Your task to perform on an android device: Go to Yahoo.com Image 0: 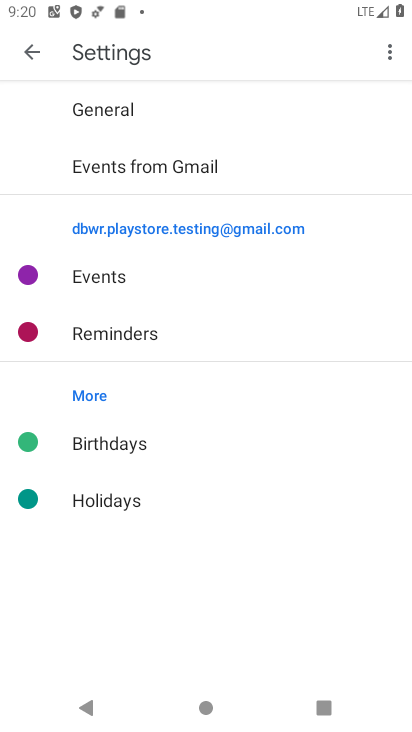
Step 0: press home button
Your task to perform on an android device: Go to Yahoo.com Image 1: 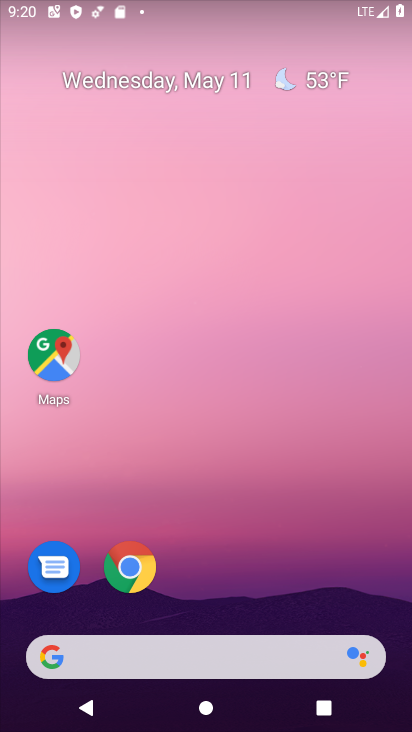
Step 1: click (106, 655)
Your task to perform on an android device: Go to Yahoo.com Image 2: 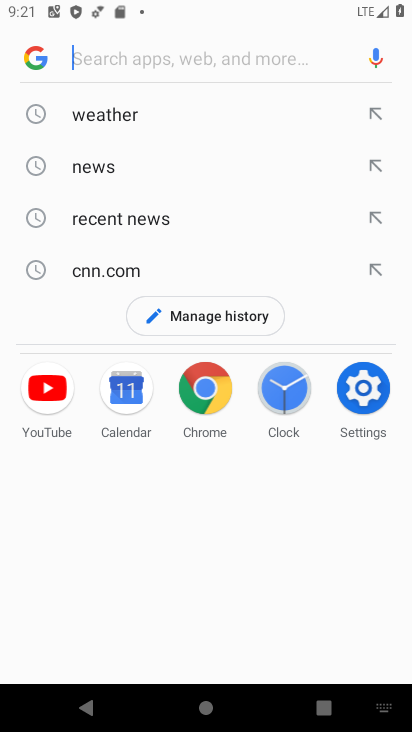
Step 2: type "yahoo.com"
Your task to perform on an android device: Go to Yahoo.com Image 3: 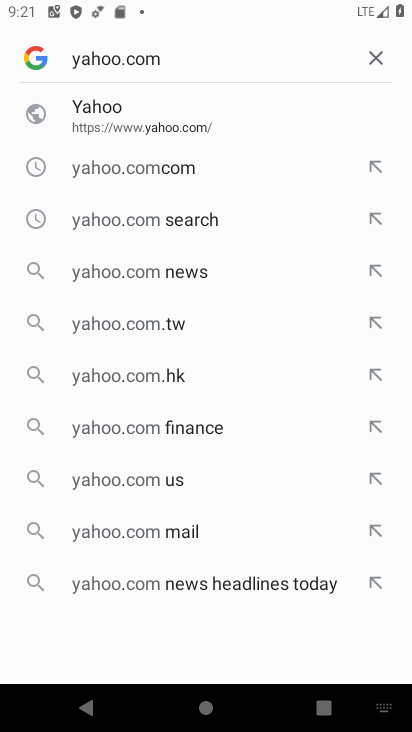
Step 3: click (225, 113)
Your task to perform on an android device: Go to Yahoo.com Image 4: 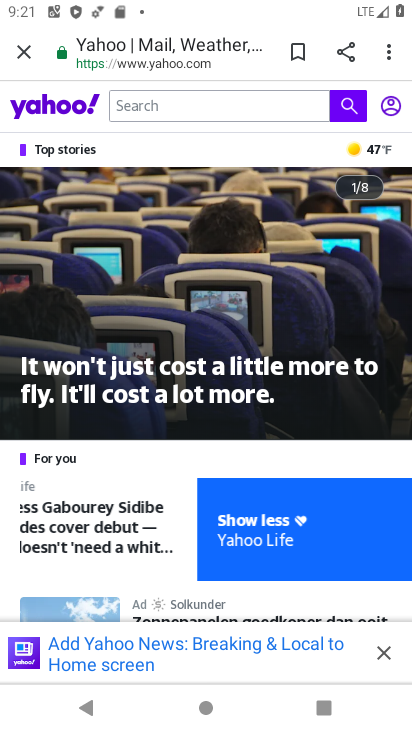
Step 4: task complete